Your task to perform on an android device: install app "Indeed Job Search" Image 0: 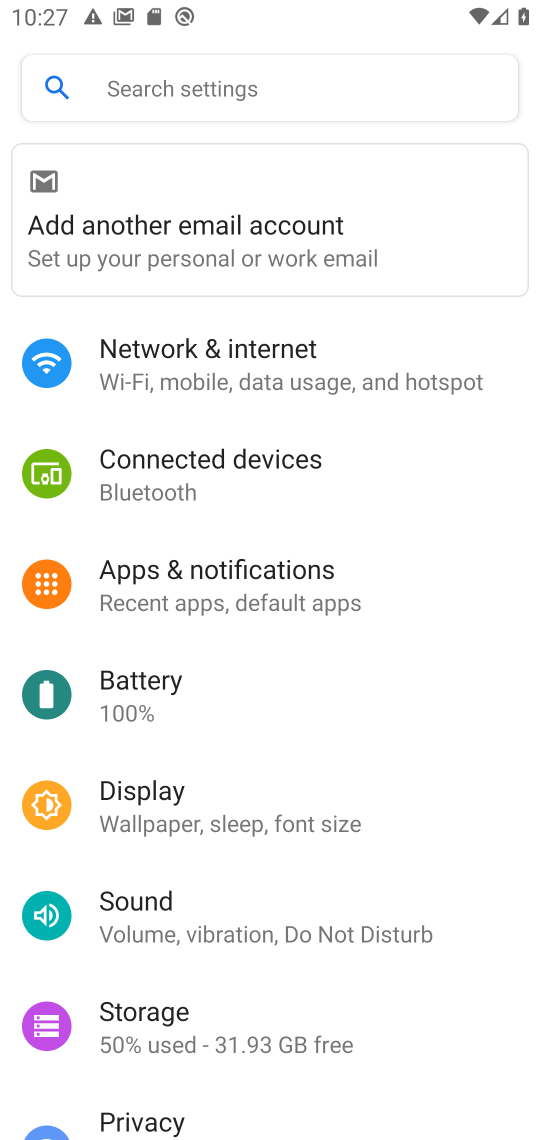
Step 0: press home button
Your task to perform on an android device: install app "Indeed Job Search" Image 1: 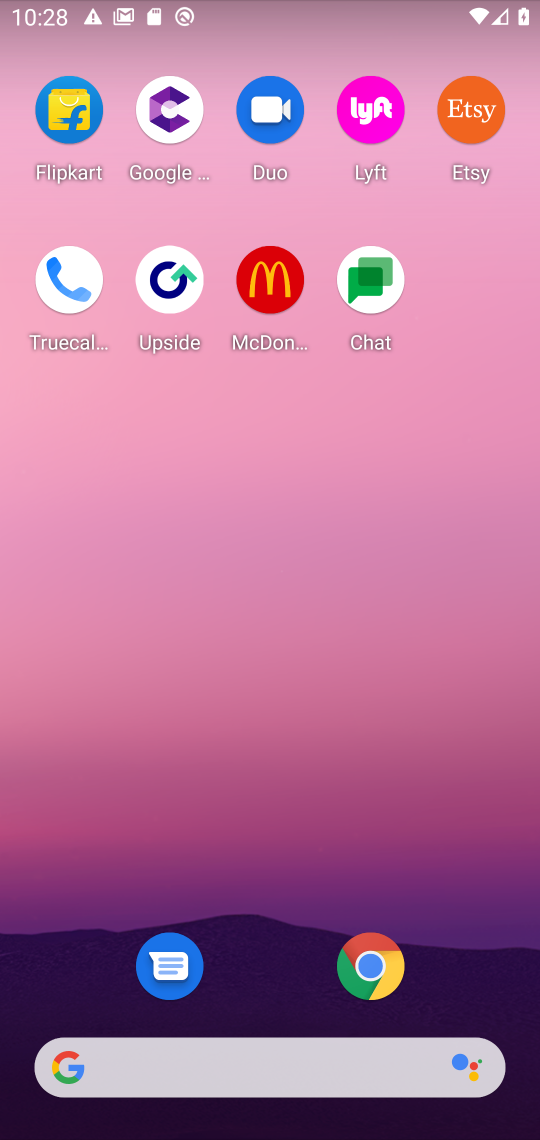
Step 1: drag from (240, 961) to (278, 134)
Your task to perform on an android device: install app "Indeed Job Search" Image 2: 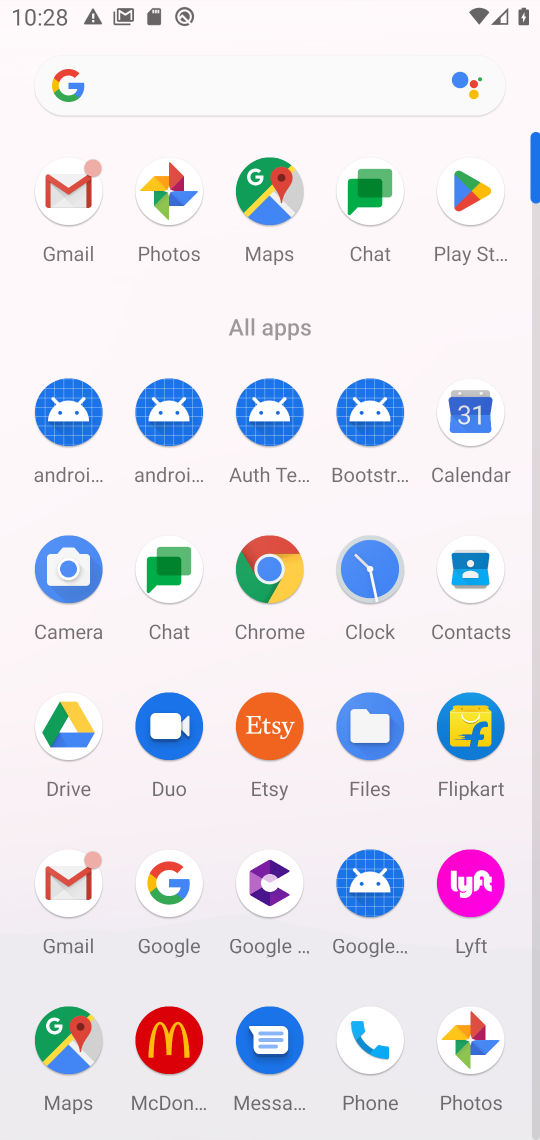
Step 2: drag from (297, 965) to (351, 457)
Your task to perform on an android device: install app "Indeed Job Search" Image 3: 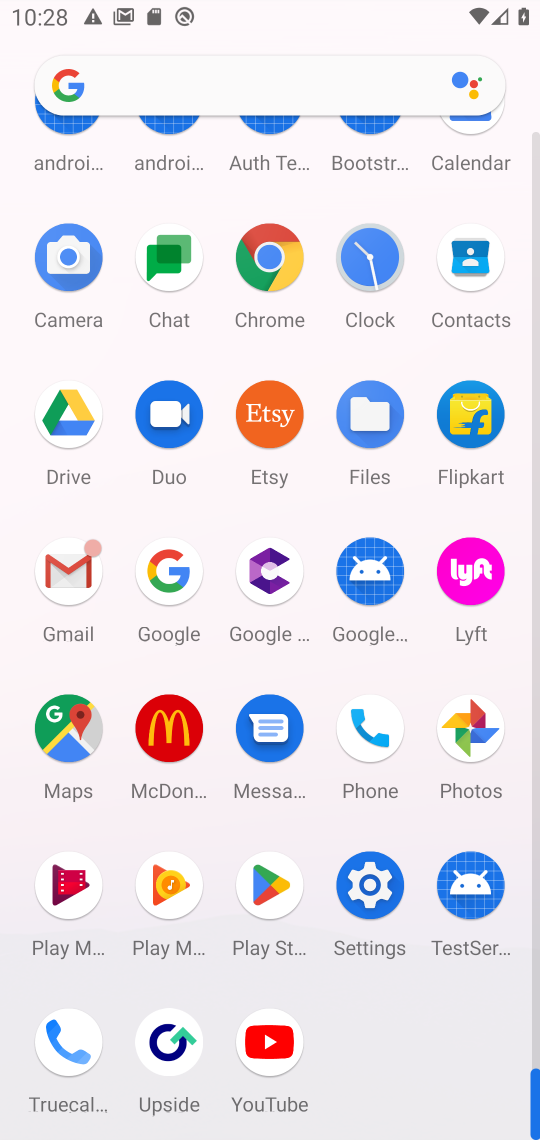
Step 3: click (283, 912)
Your task to perform on an android device: install app "Indeed Job Search" Image 4: 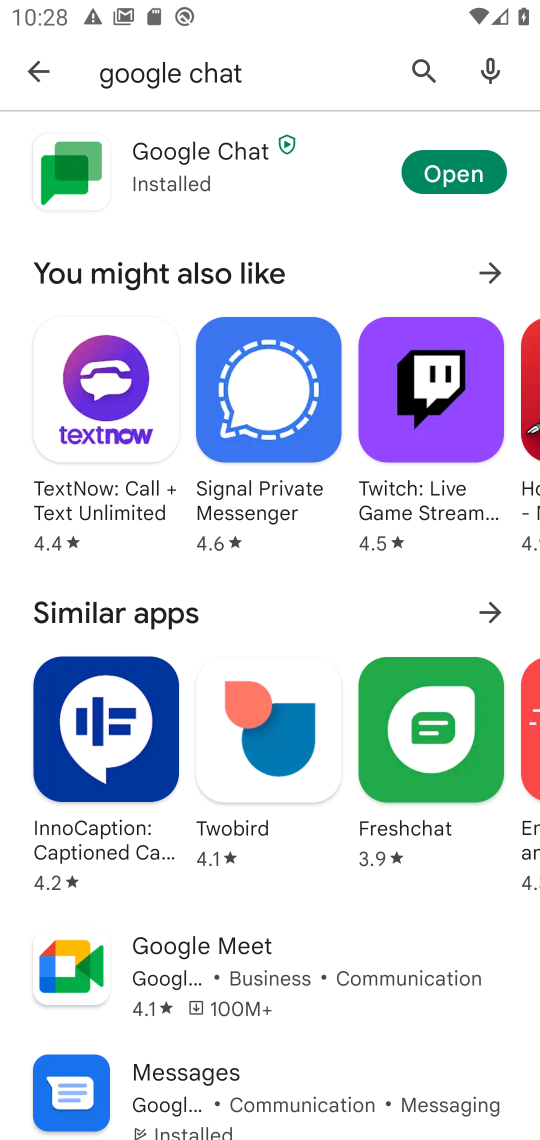
Step 4: click (242, 65)
Your task to perform on an android device: install app "Indeed Job Search" Image 5: 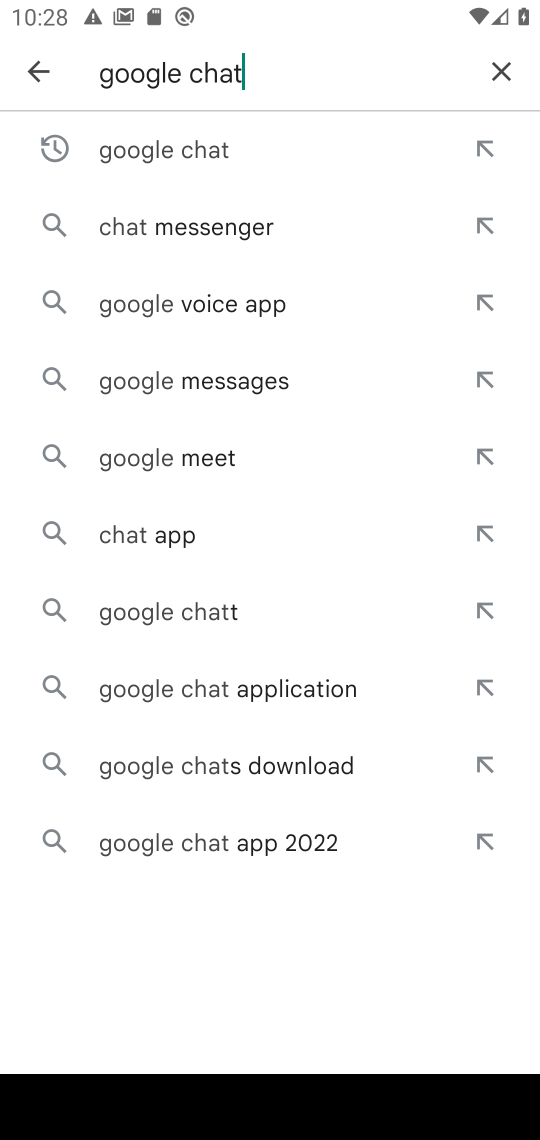
Step 5: click (508, 66)
Your task to perform on an android device: install app "Indeed Job Search" Image 6: 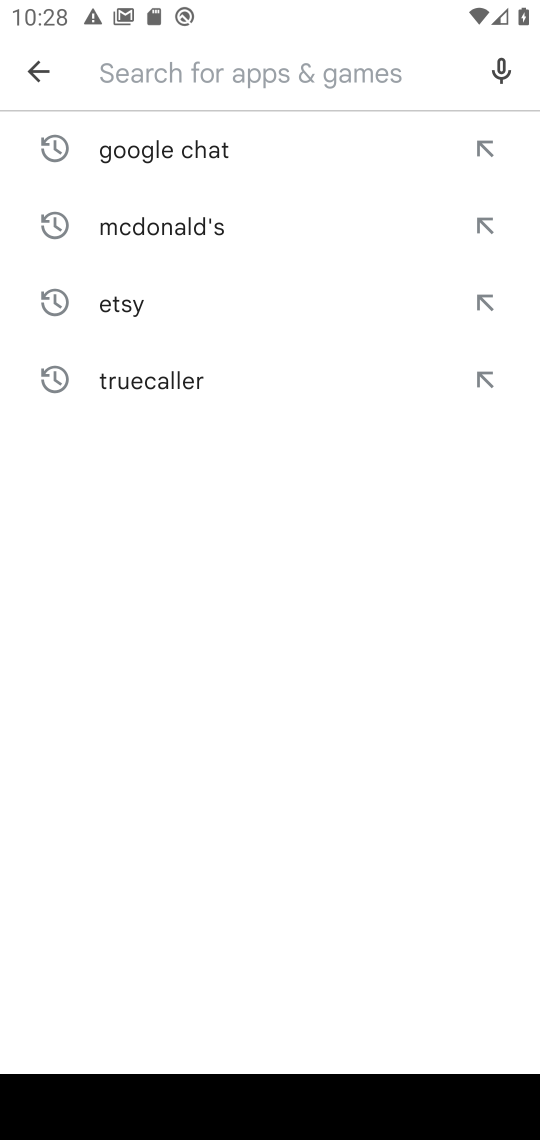
Step 6: type "indeed job search"
Your task to perform on an android device: install app "Indeed Job Search" Image 7: 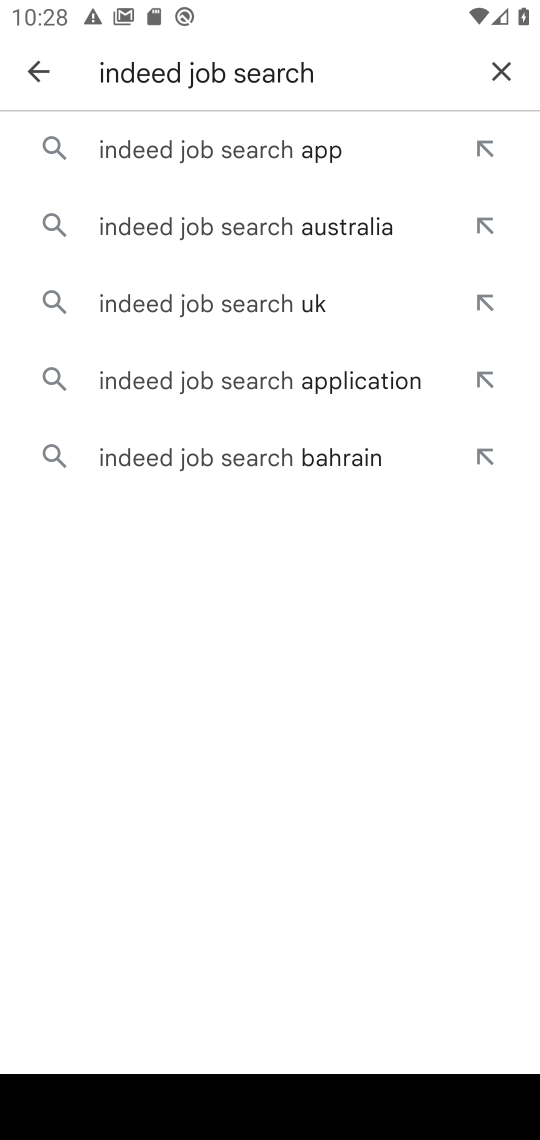
Step 7: click (304, 175)
Your task to perform on an android device: install app "Indeed Job Search" Image 8: 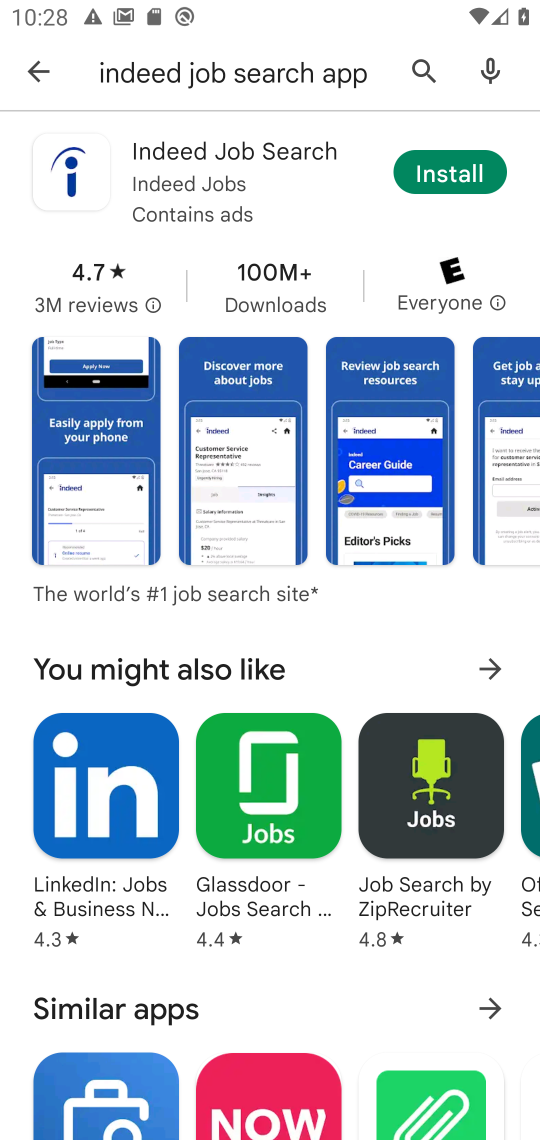
Step 8: click (467, 162)
Your task to perform on an android device: install app "Indeed Job Search" Image 9: 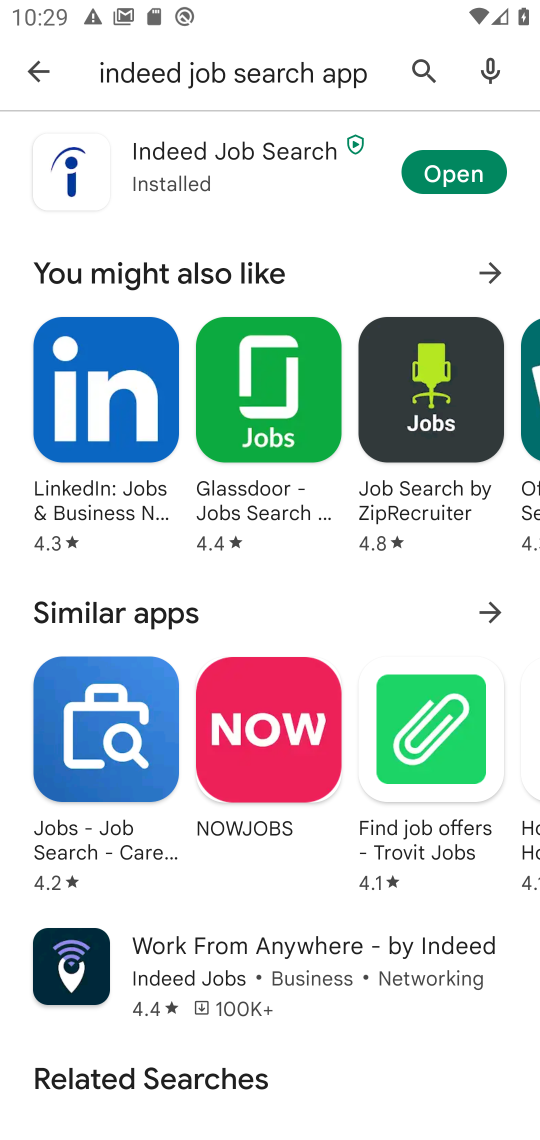
Step 9: task complete